Your task to perform on an android device: See recent photos Image 0: 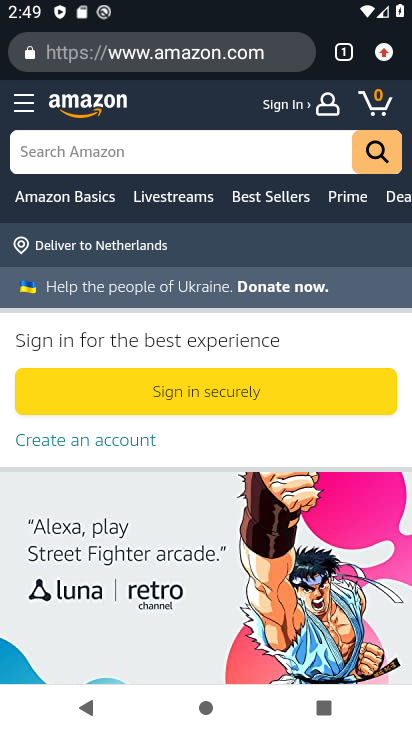
Step 0: press home button
Your task to perform on an android device: See recent photos Image 1: 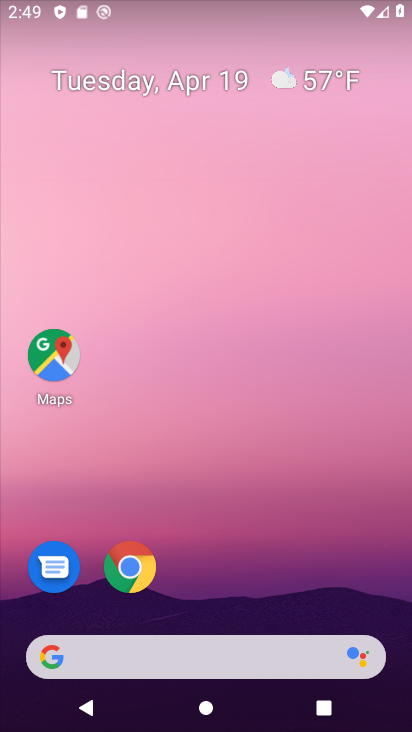
Step 1: drag from (363, 590) to (342, 54)
Your task to perform on an android device: See recent photos Image 2: 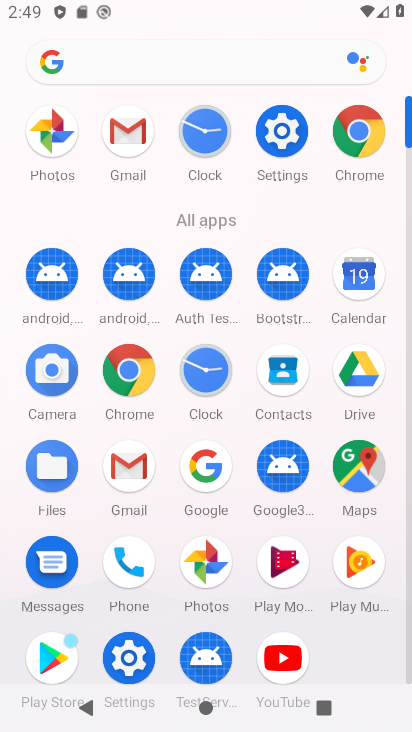
Step 2: click (188, 568)
Your task to perform on an android device: See recent photos Image 3: 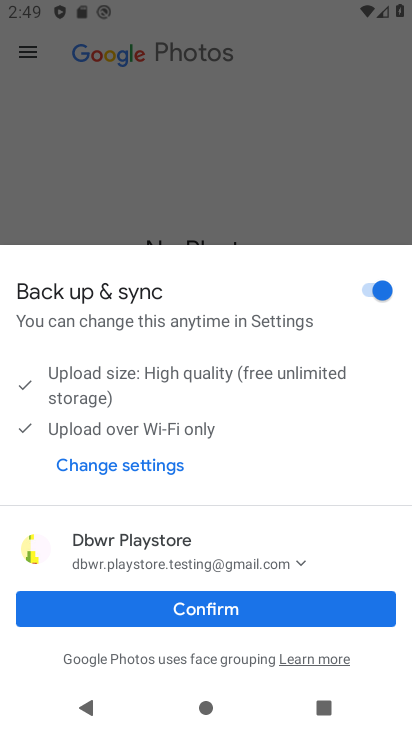
Step 3: click (348, 613)
Your task to perform on an android device: See recent photos Image 4: 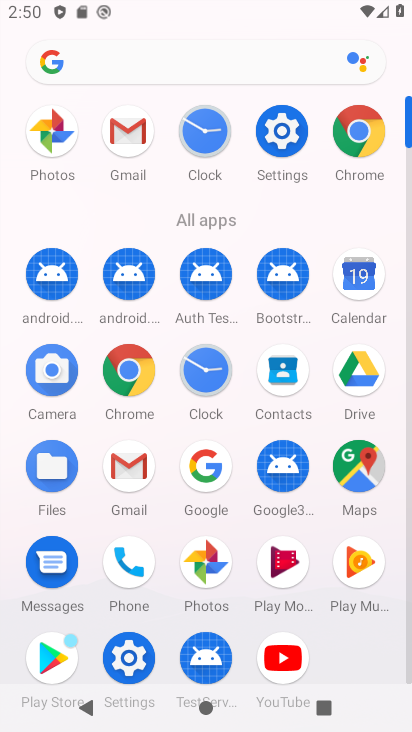
Step 4: click (205, 562)
Your task to perform on an android device: See recent photos Image 5: 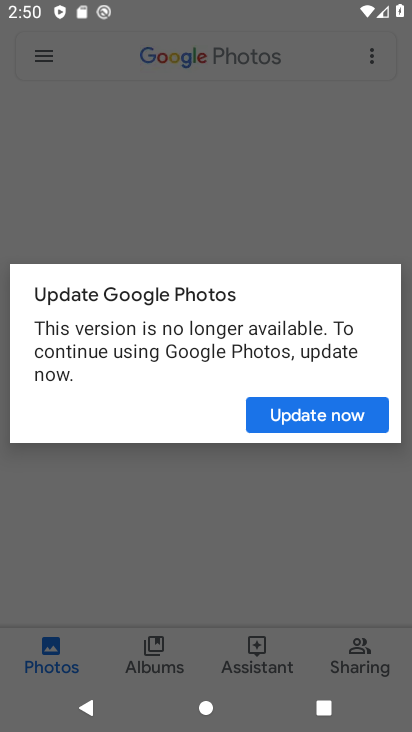
Step 5: click (329, 415)
Your task to perform on an android device: See recent photos Image 6: 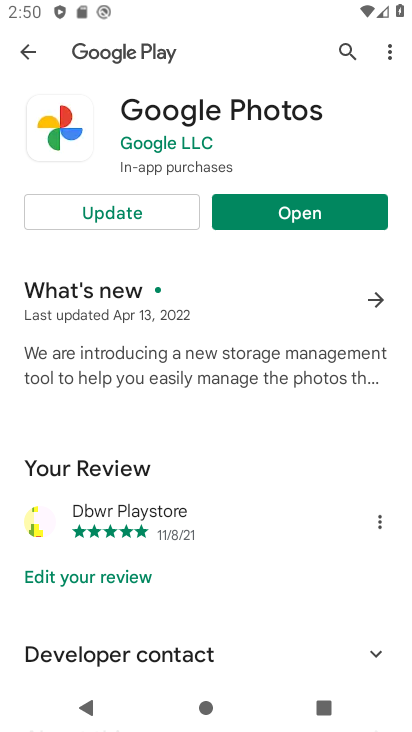
Step 6: click (136, 207)
Your task to perform on an android device: See recent photos Image 7: 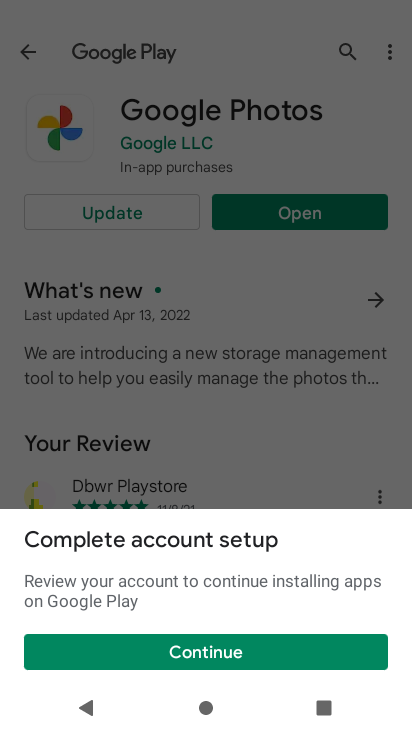
Step 7: click (232, 650)
Your task to perform on an android device: See recent photos Image 8: 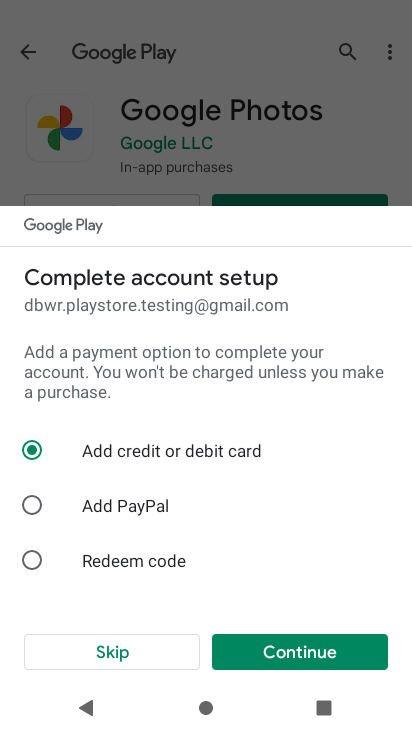
Step 8: click (135, 662)
Your task to perform on an android device: See recent photos Image 9: 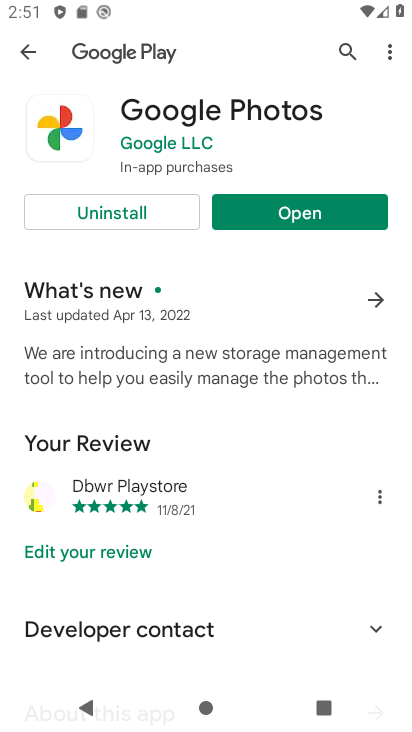
Step 9: click (312, 216)
Your task to perform on an android device: See recent photos Image 10: 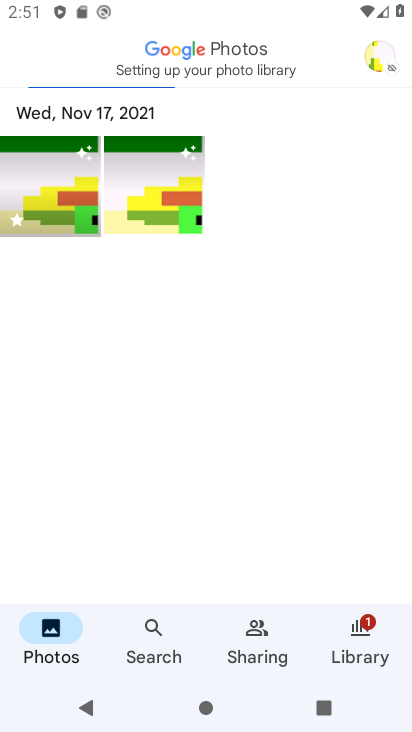
Step 10: click (72, 184)
Your task to perform on an android device: See recent photos Image 11: 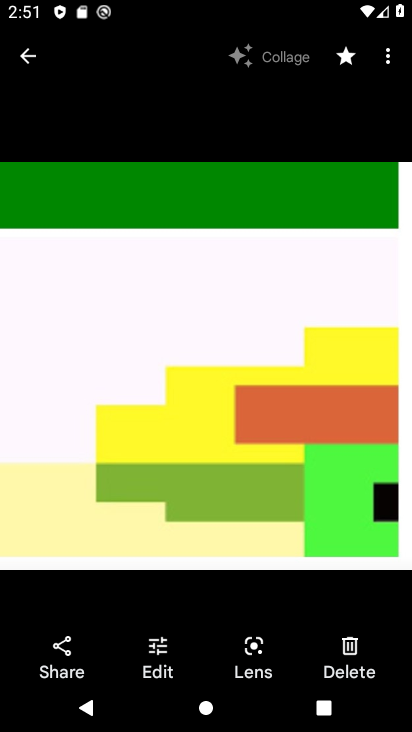
Step 11: task complete